Your task to perform on an android device: turn on javascript in the chrome app Image 0: 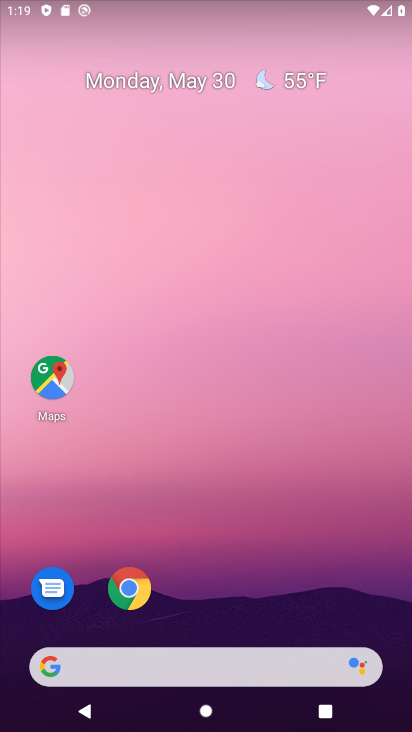
Step 0: click (132, 586)
Your task to perform on an android device: turn on javascript in the chrome app Image 1: 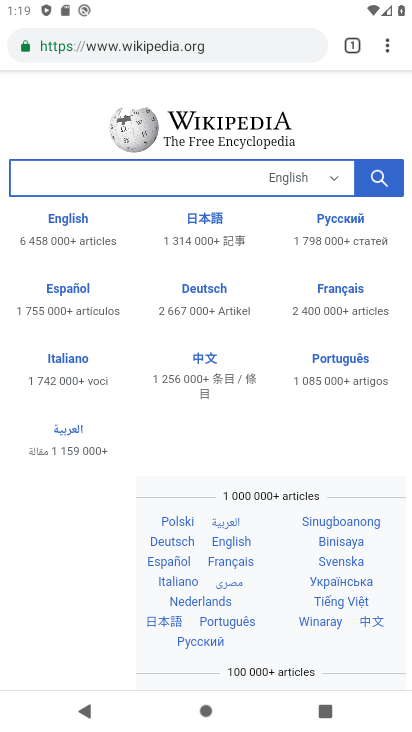
Step 1: click (386, 46)
Your task to perform on an android device: turn on javascript in the chrome app Image 2: 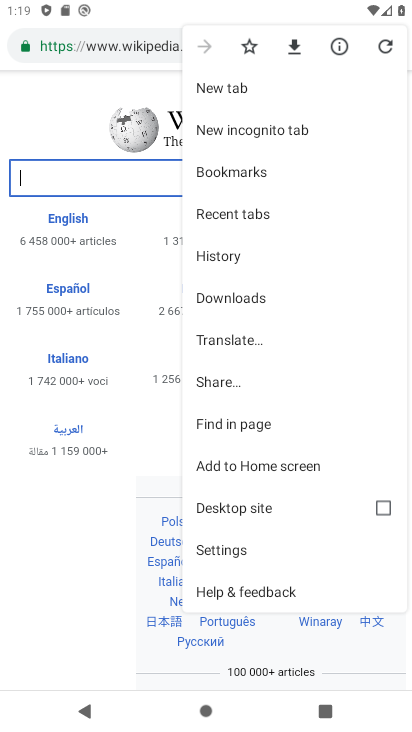
Step 2: click (222, 554)
Your task to perform on an android device: turn on javascript in the chrome app Image 3: 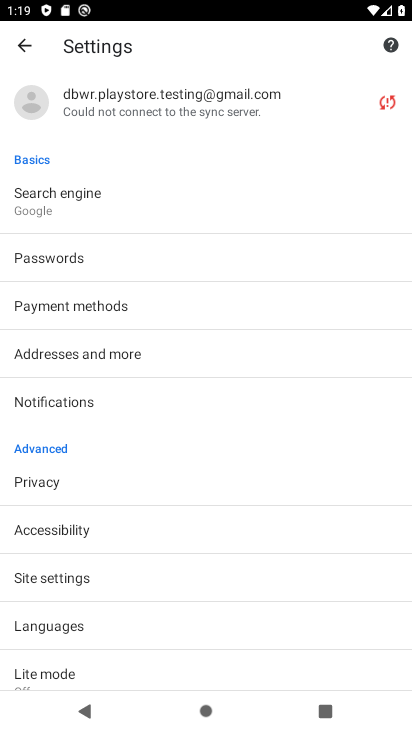
Step 3: click (70, 572)
Your task to perform on an android device: turn on javascript in the chrome app Image 4: 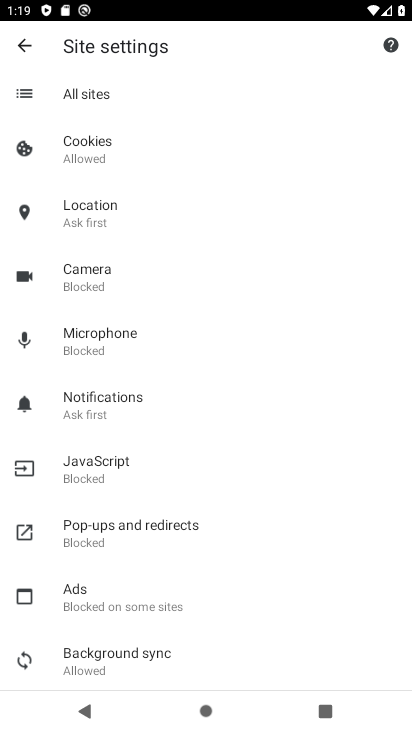
Step 4: click (97, 467)
Your task to perform on an android device: turn on javascript in the chrome app Image 5: 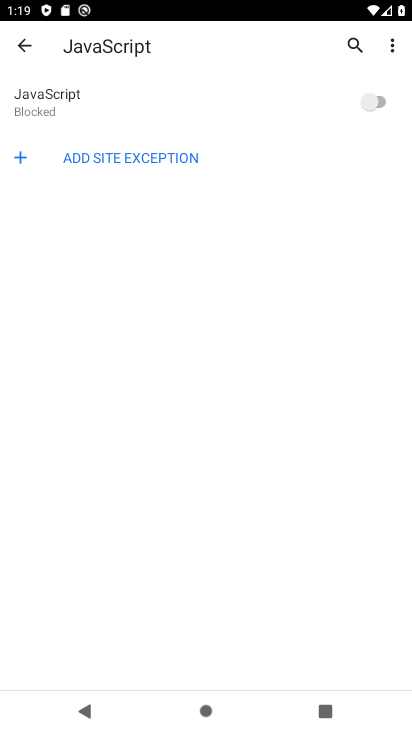
Step 5: click (383, 103)
Your task to perform on an android device: turn on javascript in the chrome app Image 6: 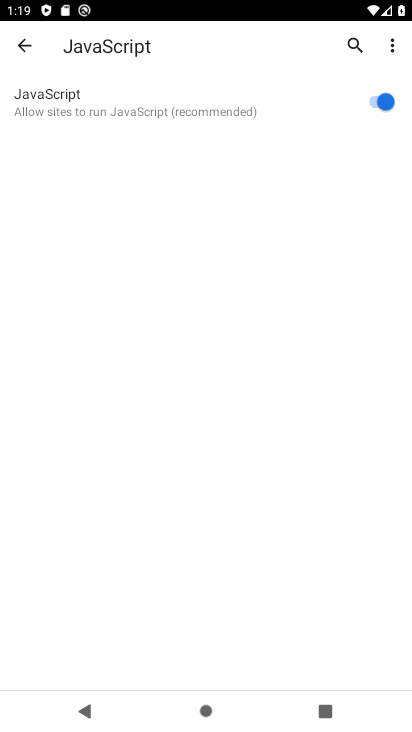
Step 6: task complete